Your task to perform on an android device: Is it going to rain today? Image 0: 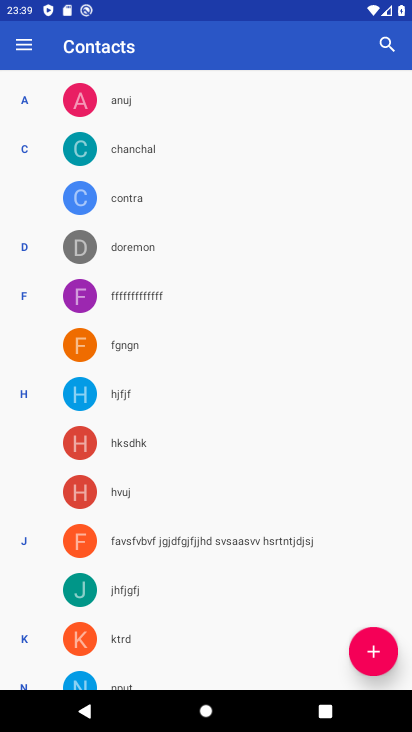
Step 0: press home button
Your task to perform on an android device: Is it going to rain today? Image 1: 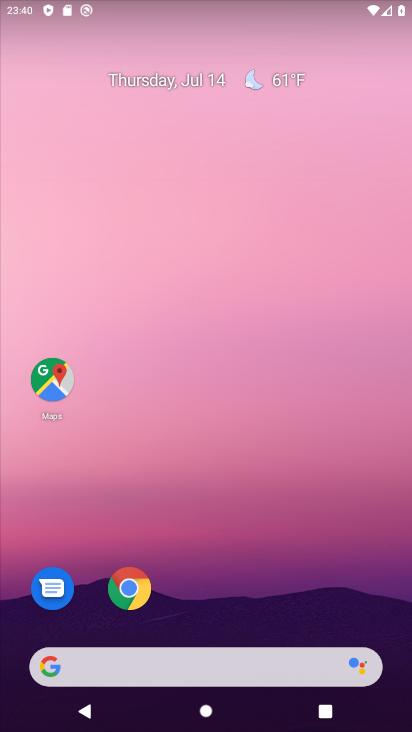
Step 1: click (170, 676)
Your task to perform on an android device: Is it going to rain today? Image 2: 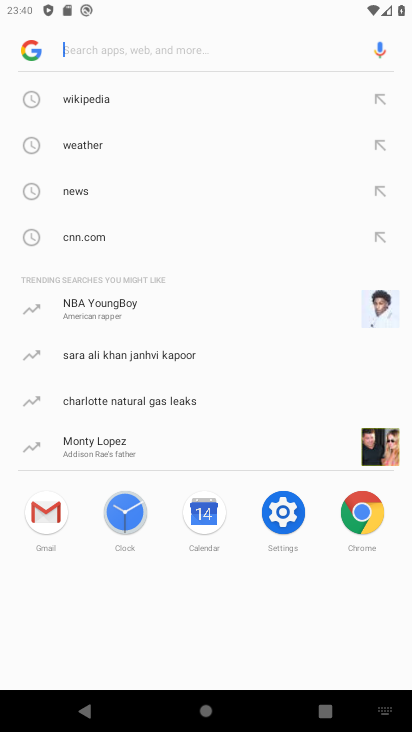
Step 2: click (87, 151)
Your task to perform on an android device: Is it going to rain today? Image 3: 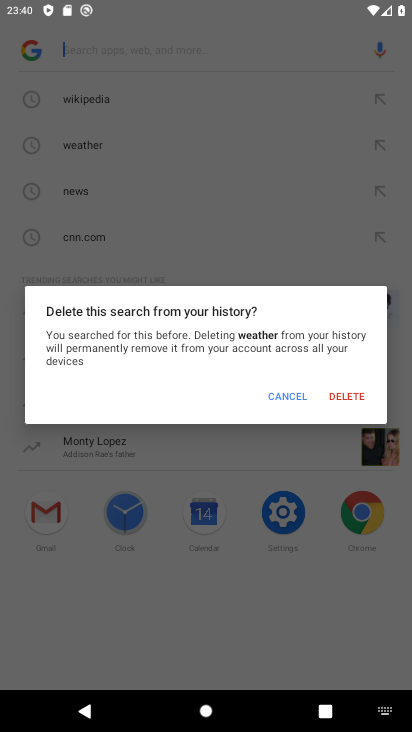
Step 3: click (290, 403)
Your task to perform on an android device: Is it going to rain today? Image 4: 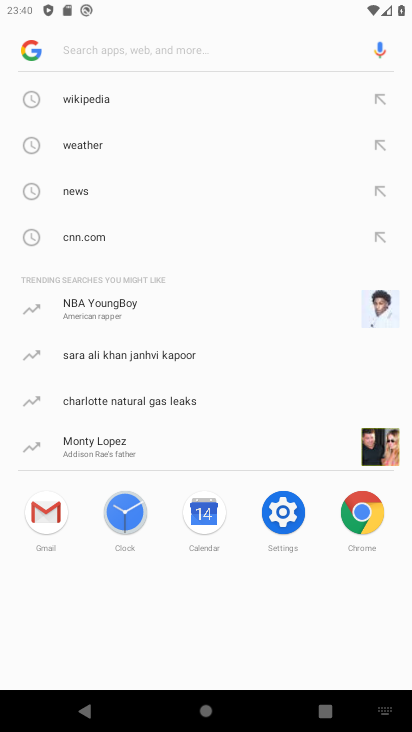
Step 4: click (93, 154)
Your task to perform on an android device: Is it going to rain today? Image 5: 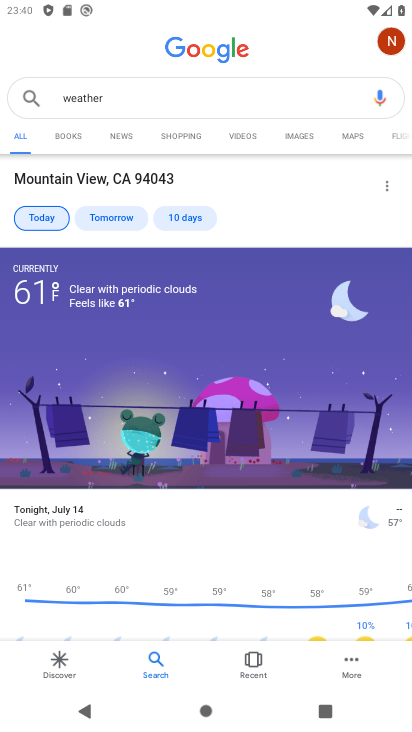
Step 5: task complete